Your task to perform on an android device: Clear the cart on amazon. Image 0: 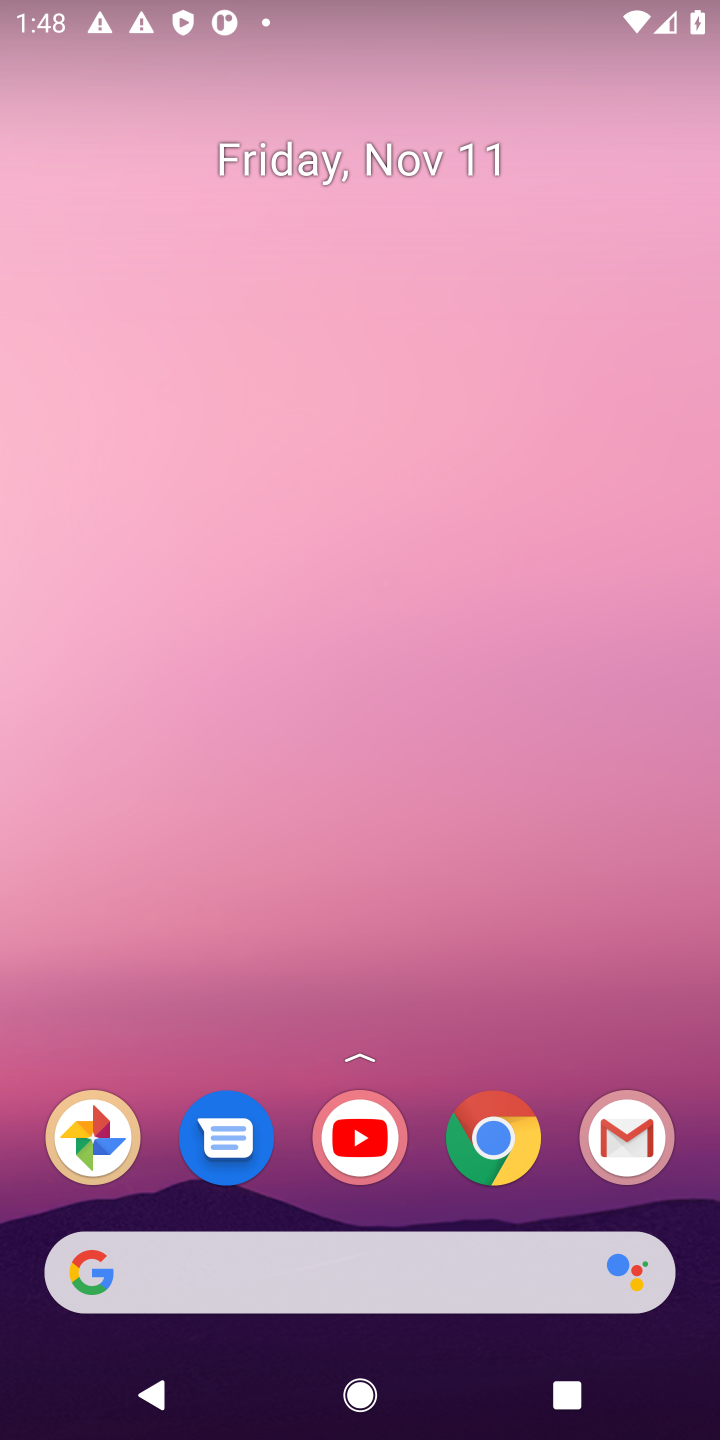
Step 0: click (487, 1142)
Your task to perform on an android device: Clear the cart on amazon. Image 1: 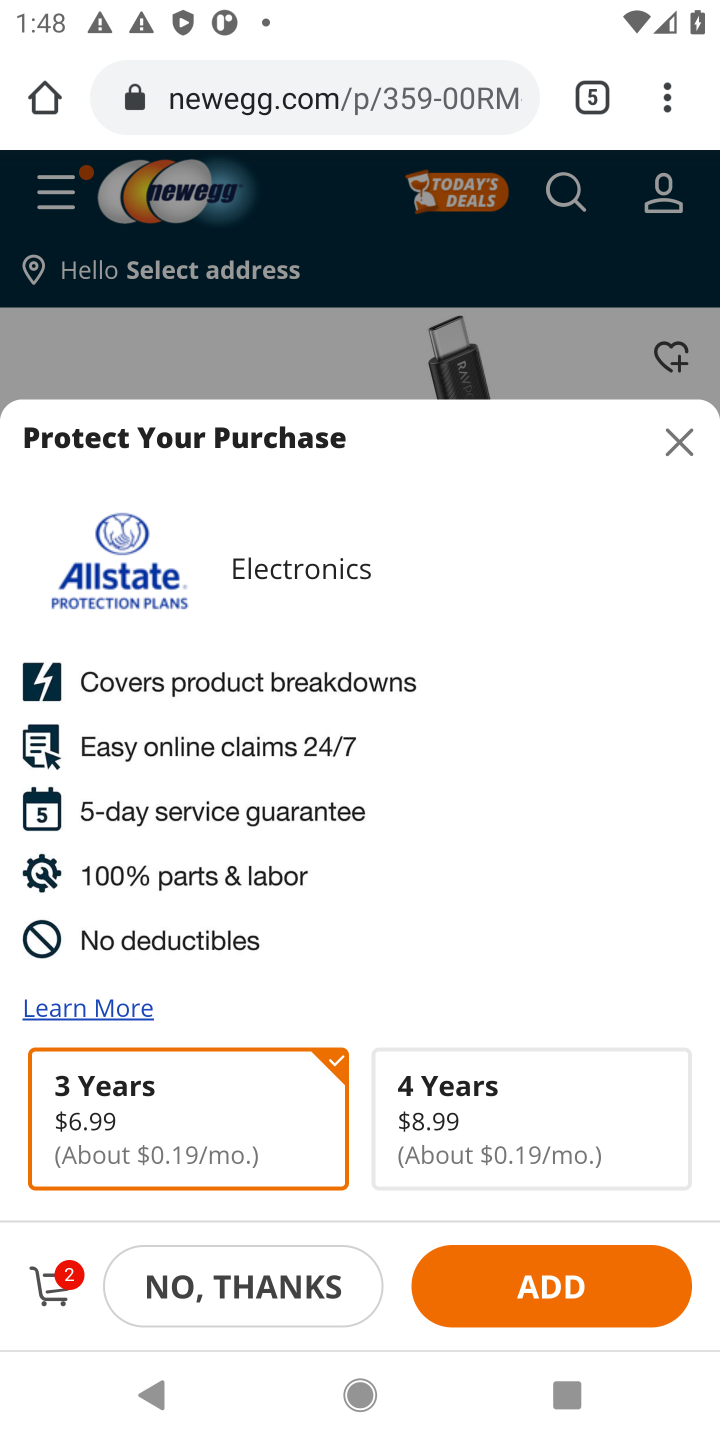
Step 1: click (592, 87)
Your task to perform on an android device: Clear the cart on amazon. Image 2: 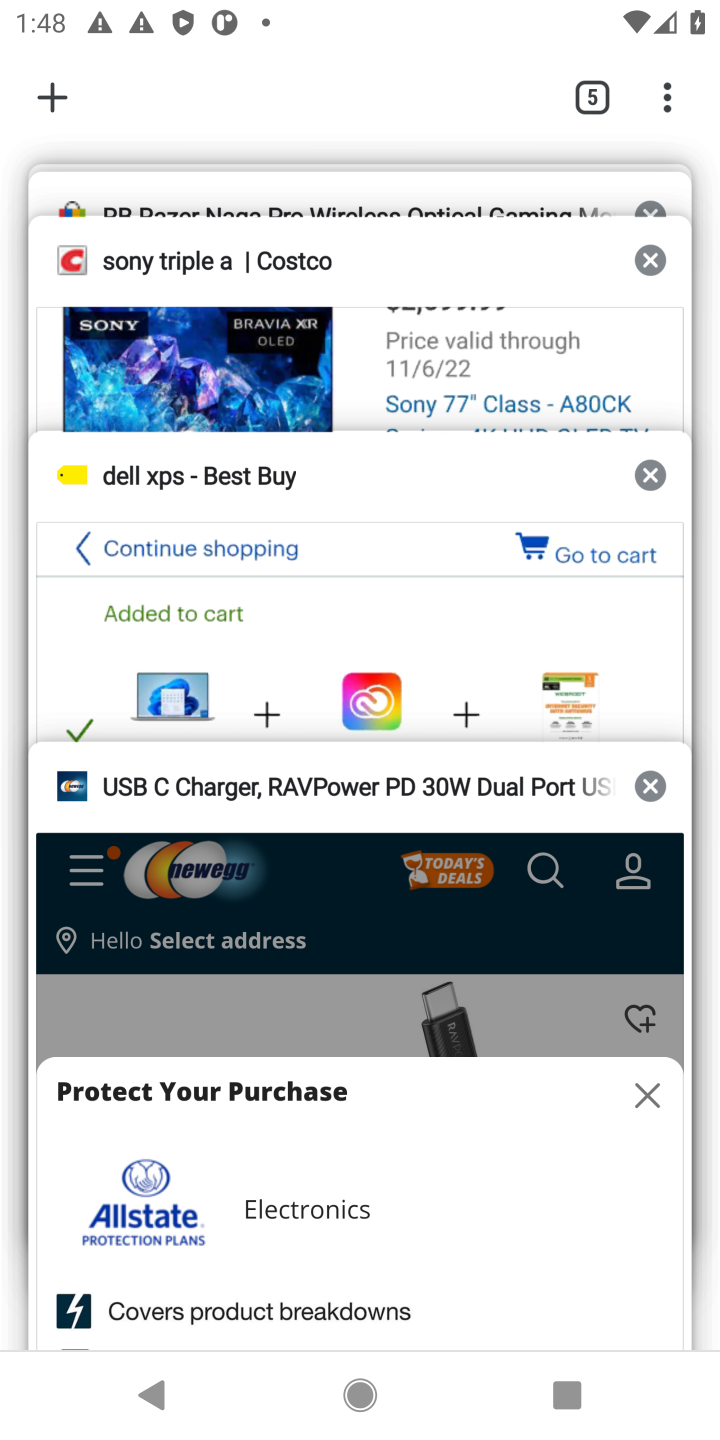
Step 2: drag from (257, 191) to (187, 573)
Your task to perform on an android device: Clear the cart on amazon. Image 3: 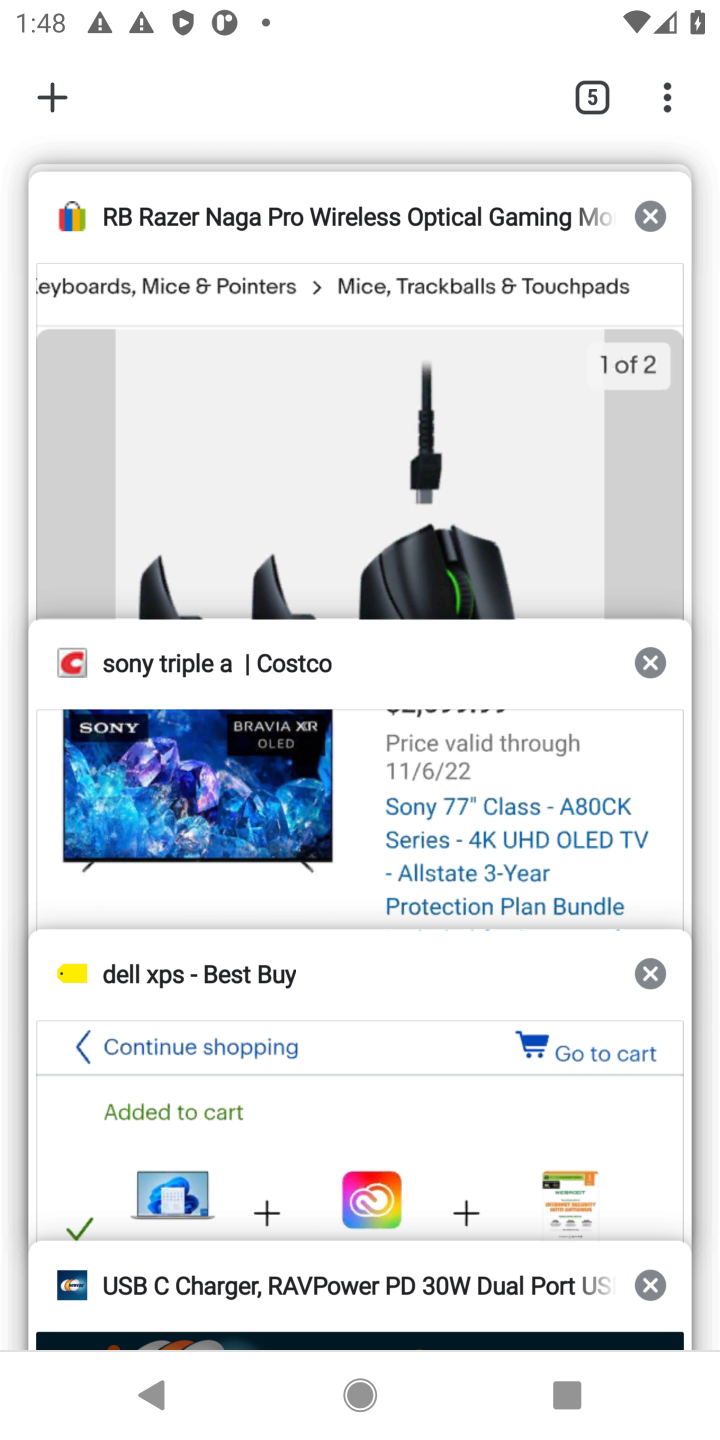
Step 3: drag from (303, 242) to (284, 644)
Your task to perform on an android device: Clear the cart on amazon. Image 4: 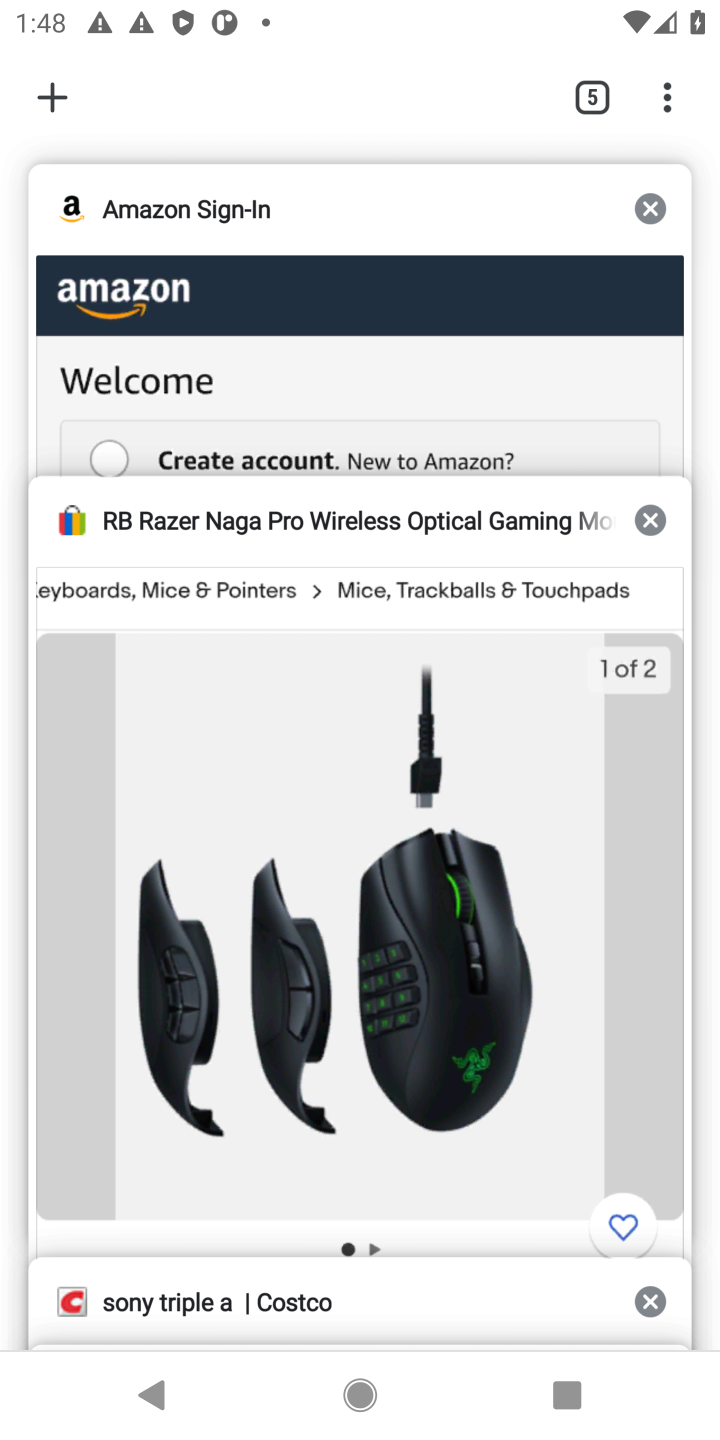
Step 4: click (382, 305)
Your task to perform on an android device: Clear the cart on amazon. Image 5: 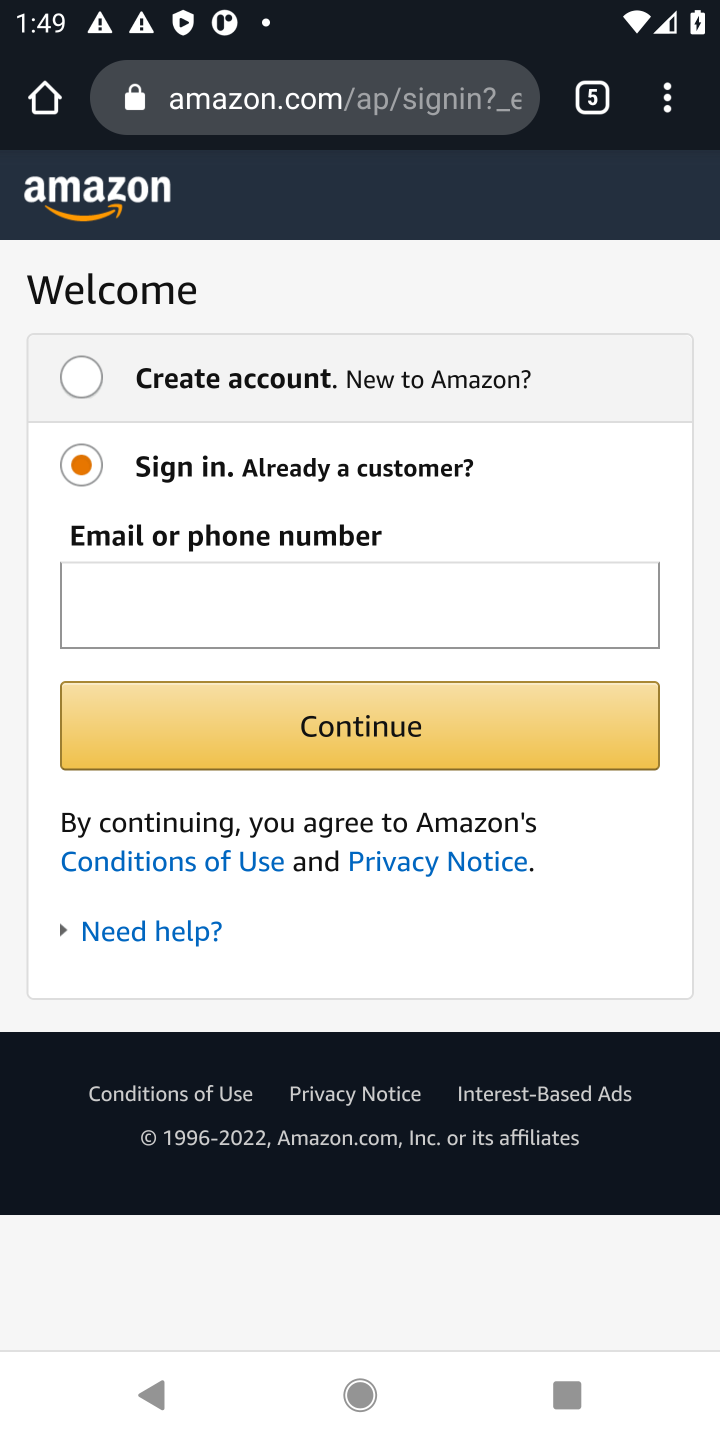
Step 5: press back button
Your task to perform on an android device: Clear the cart on amazon. Image 6: 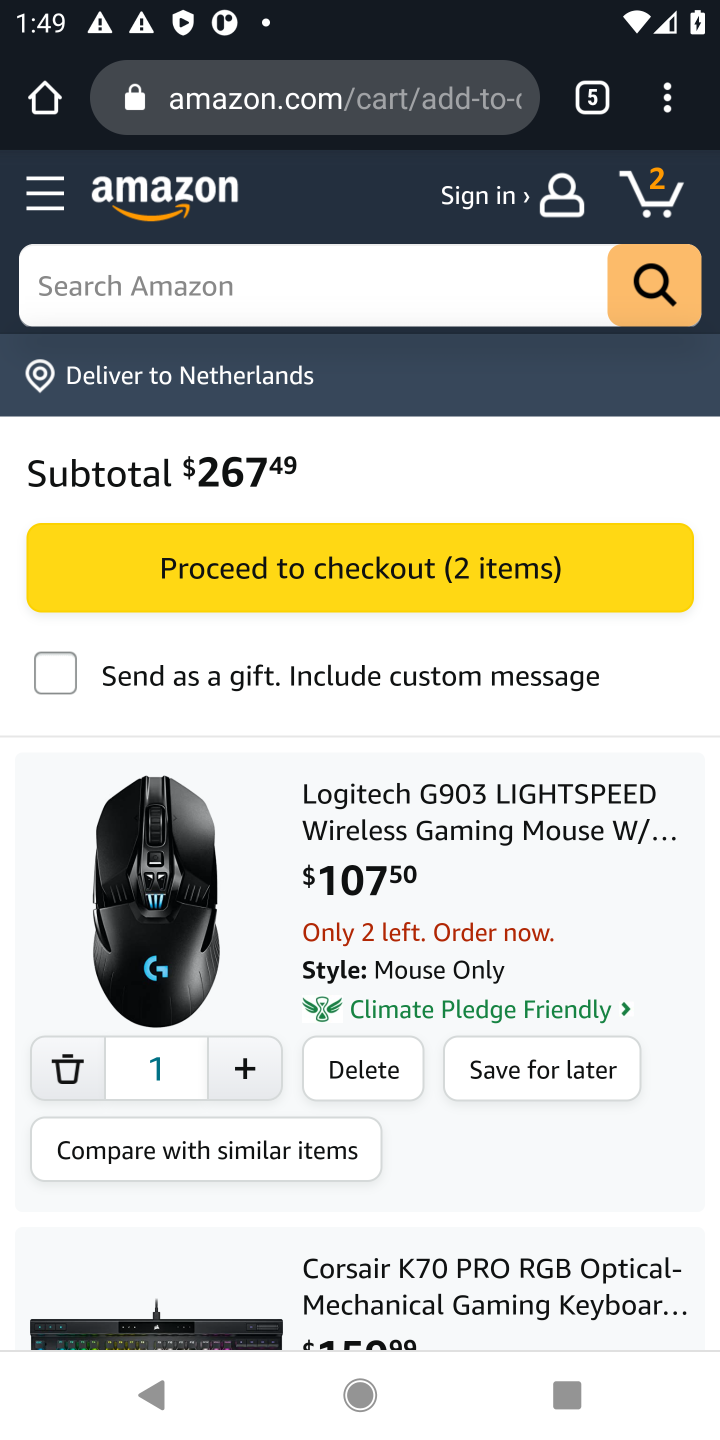
Step 6: click (369, 1063)
Your task to perform on an android device: Clear the cart on amazon. Image 7: 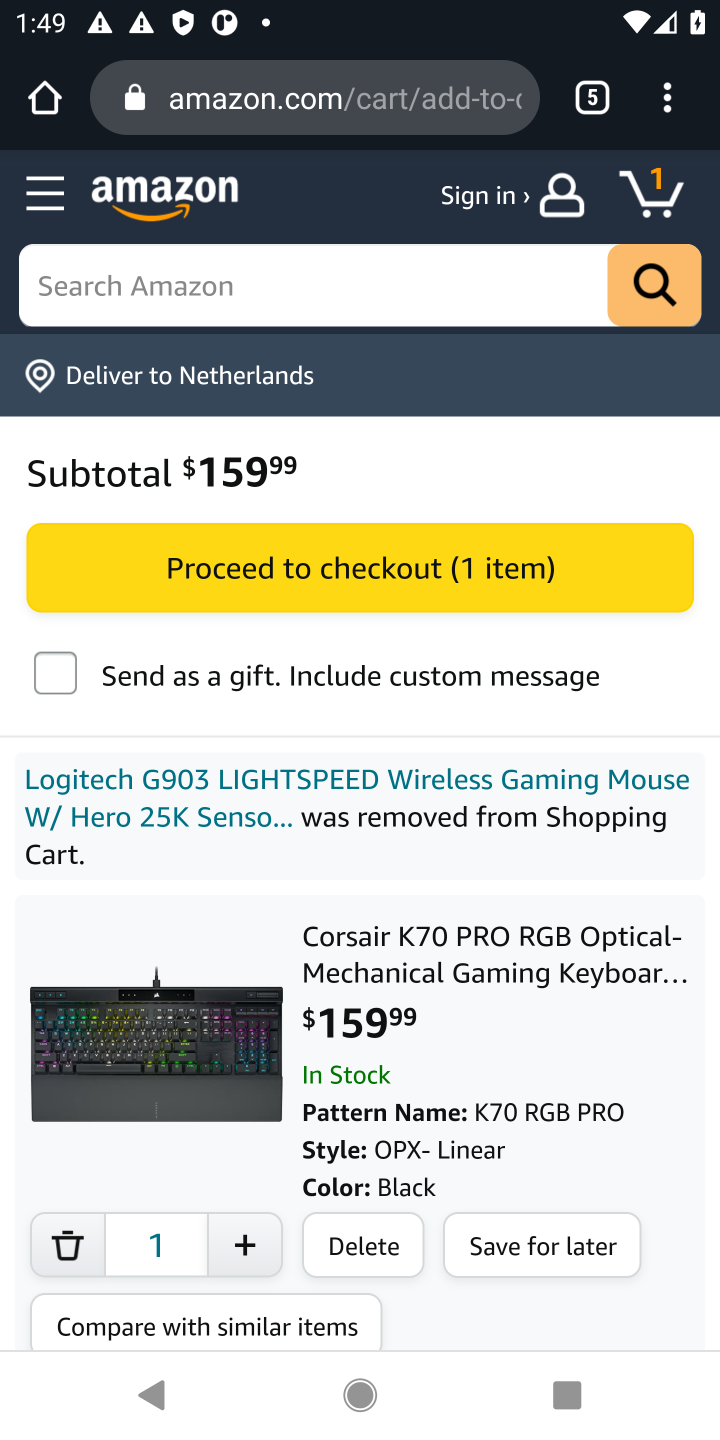
Step 7: click (359, 1234)
Your task to perform on an android device: Clear the cart on amazon. Image 8: 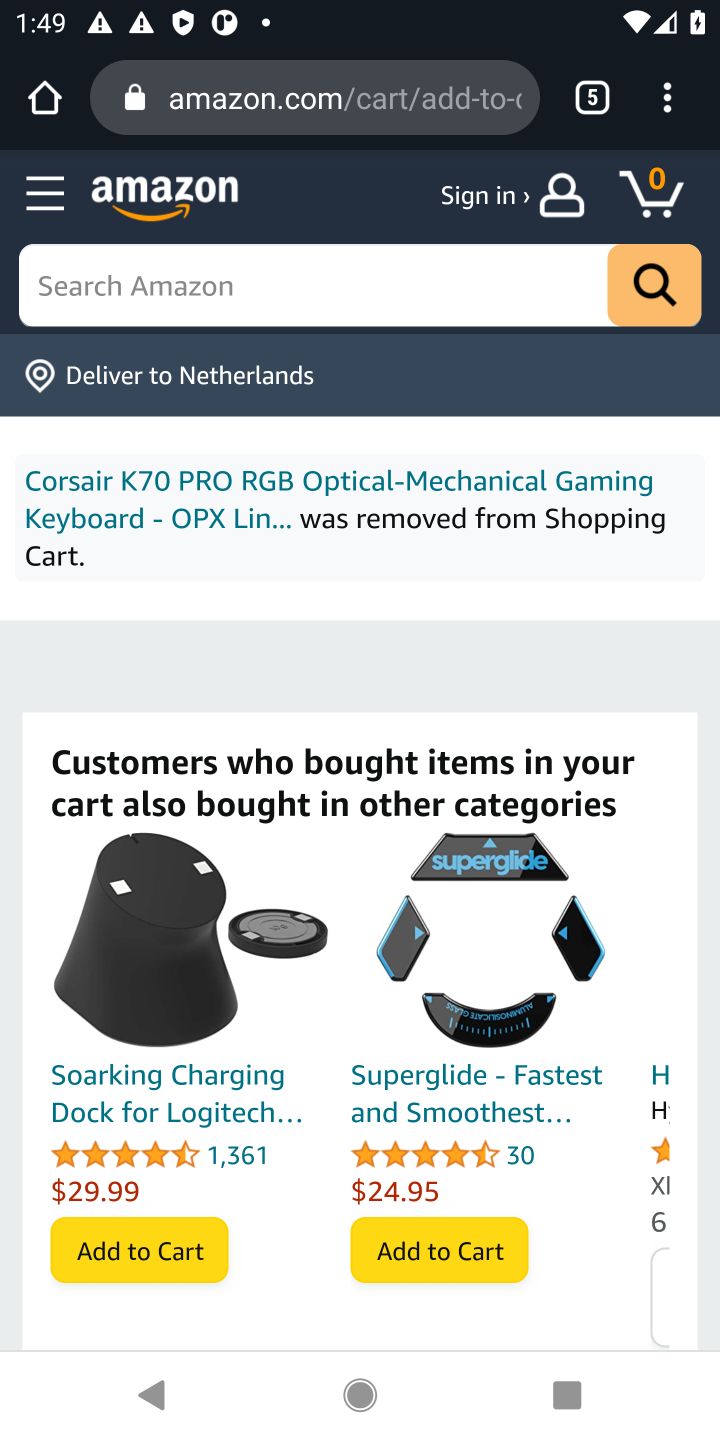
Step 8: task complete